Your task to perform on an android device: Open Chrome and go to settings Image 0: 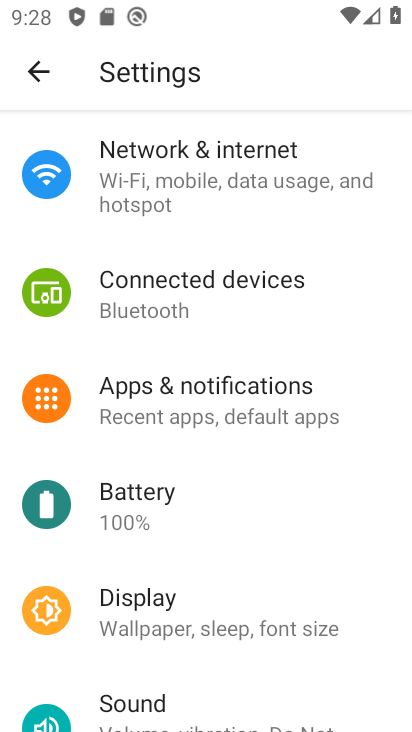
Step 0: press home button
Your task to perform on an android device: Open Chrome and go to settings Image 1: 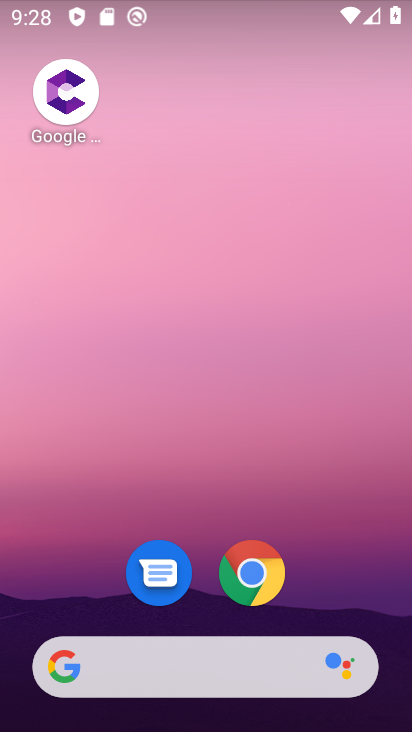
Step 1: click (242, 586)
Your task to perform on an android device: Open Chrome and go to settings Image 2: 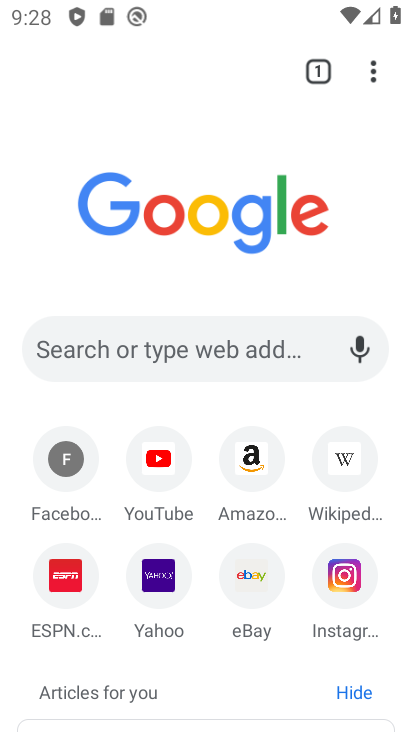
Step 2: task complete